Your task to perform on an android device: open app "Contacts" (install if not already installed) Image 0: 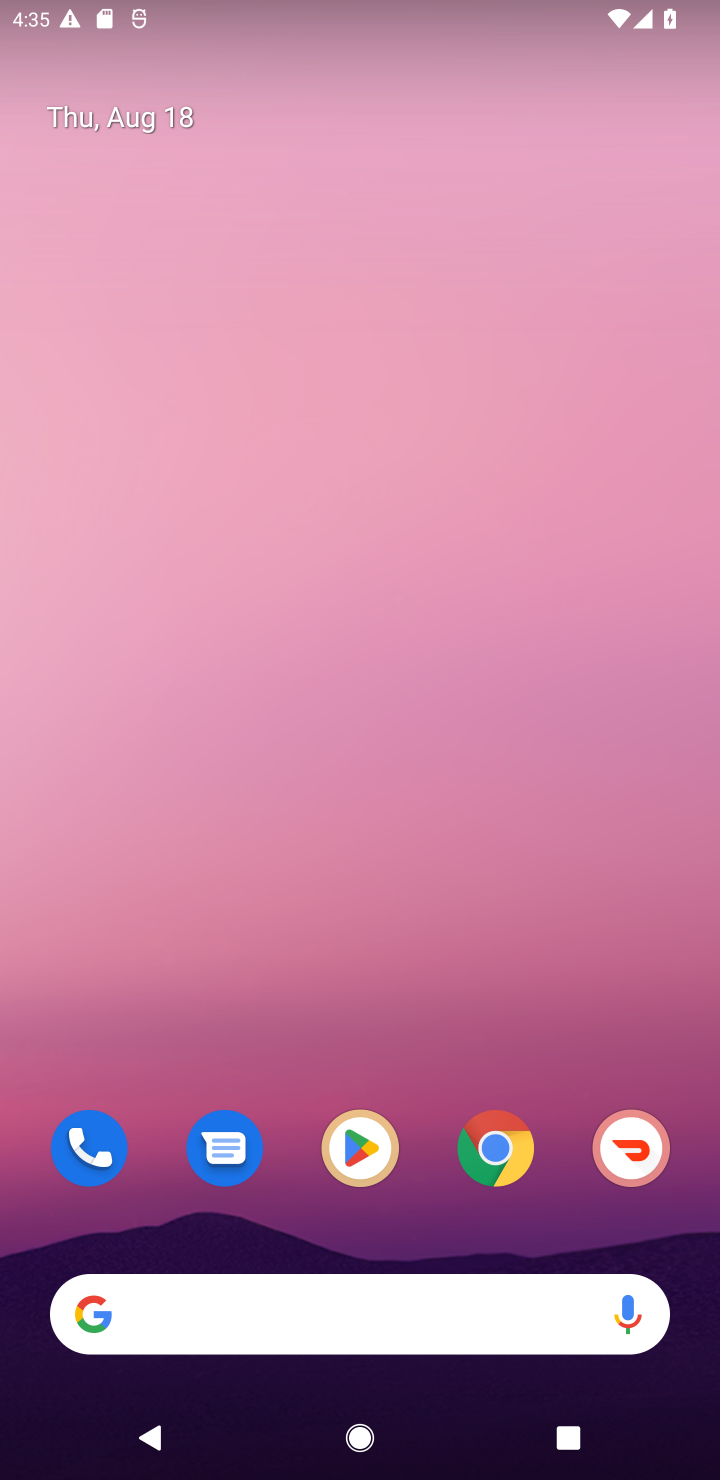
Step 0: drag from (353, 601) to (684, 0)
Your task to perform on an android device: open app "Contacts" (install if not already installed) Image 1: 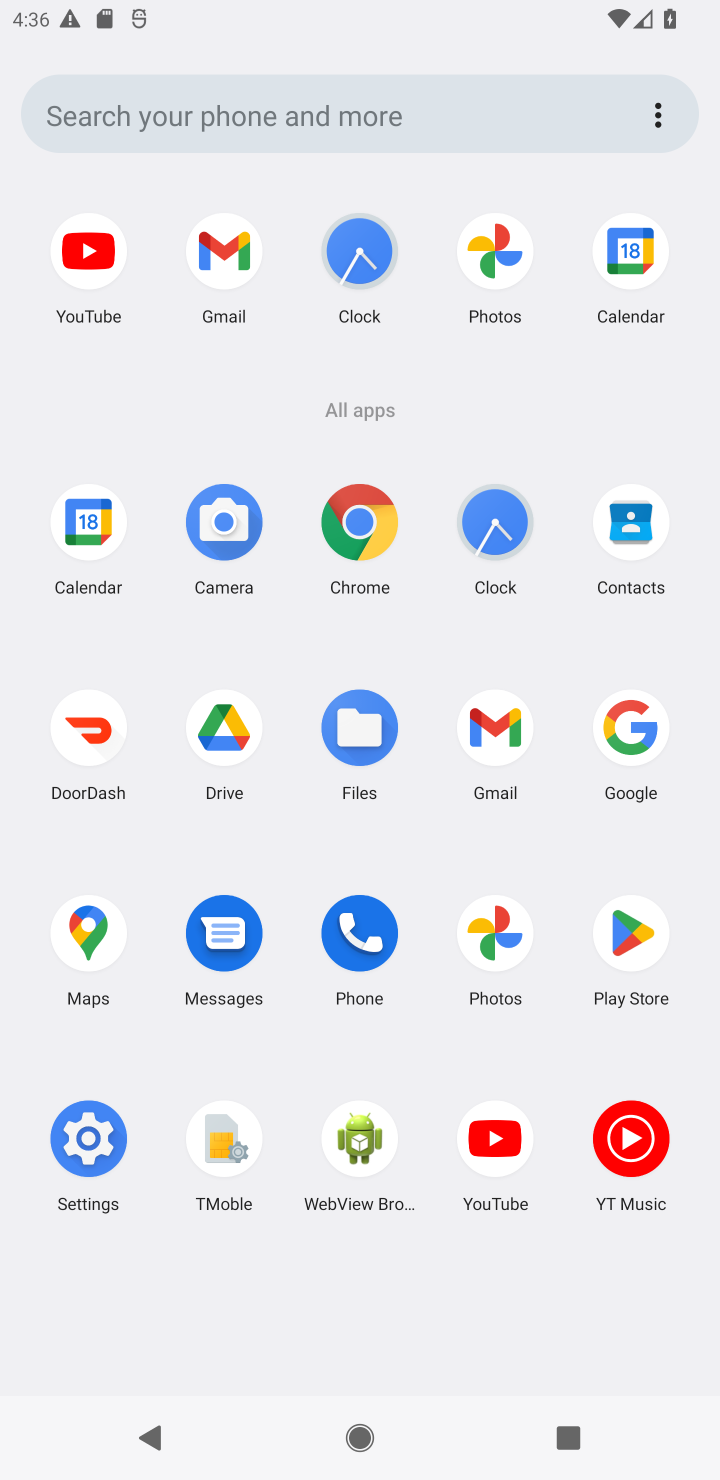
Step 1: click (618, 994)
Your task to perform on an android device: open app "Contacts" (install if not already installed) Image 2: 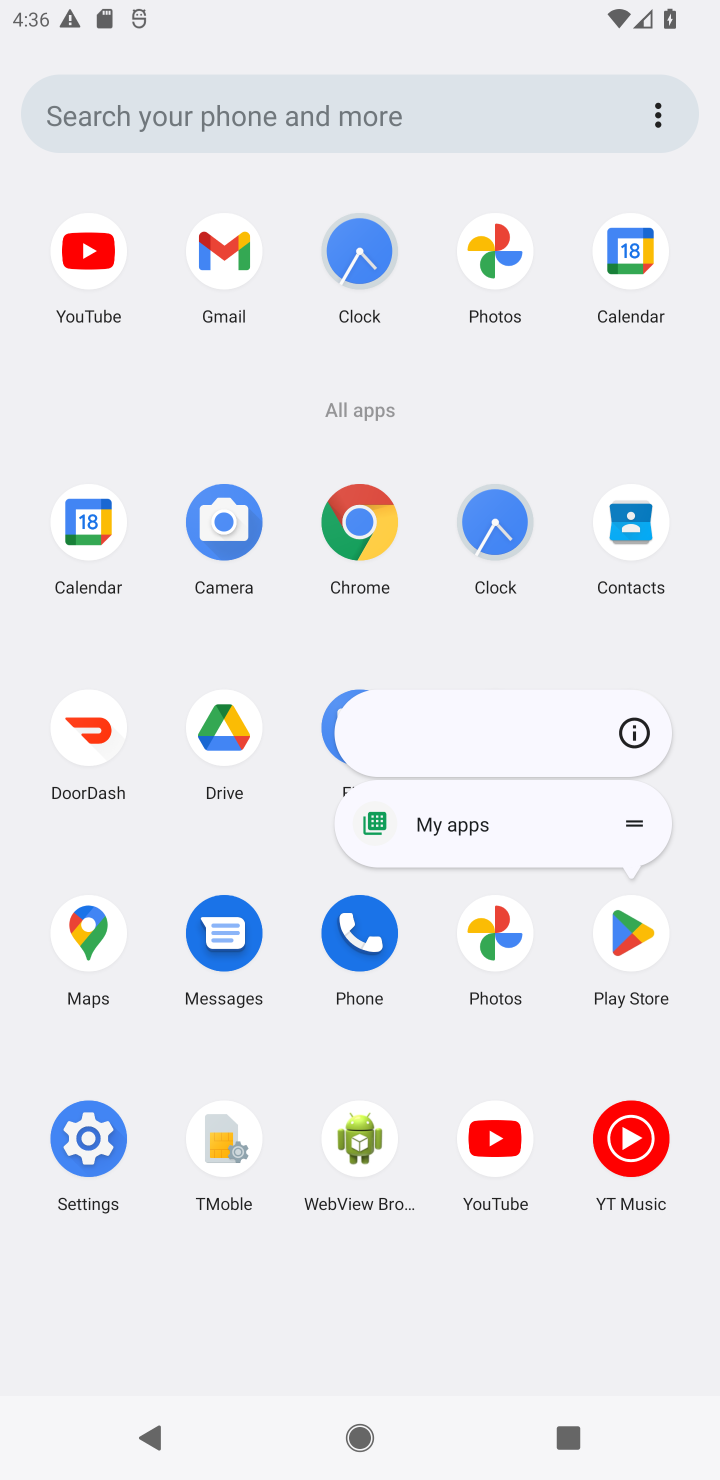
Step 2: click (629, 953)
Your task to perform on an android device: open app "Contacts" (install if not already installed) Image 3: 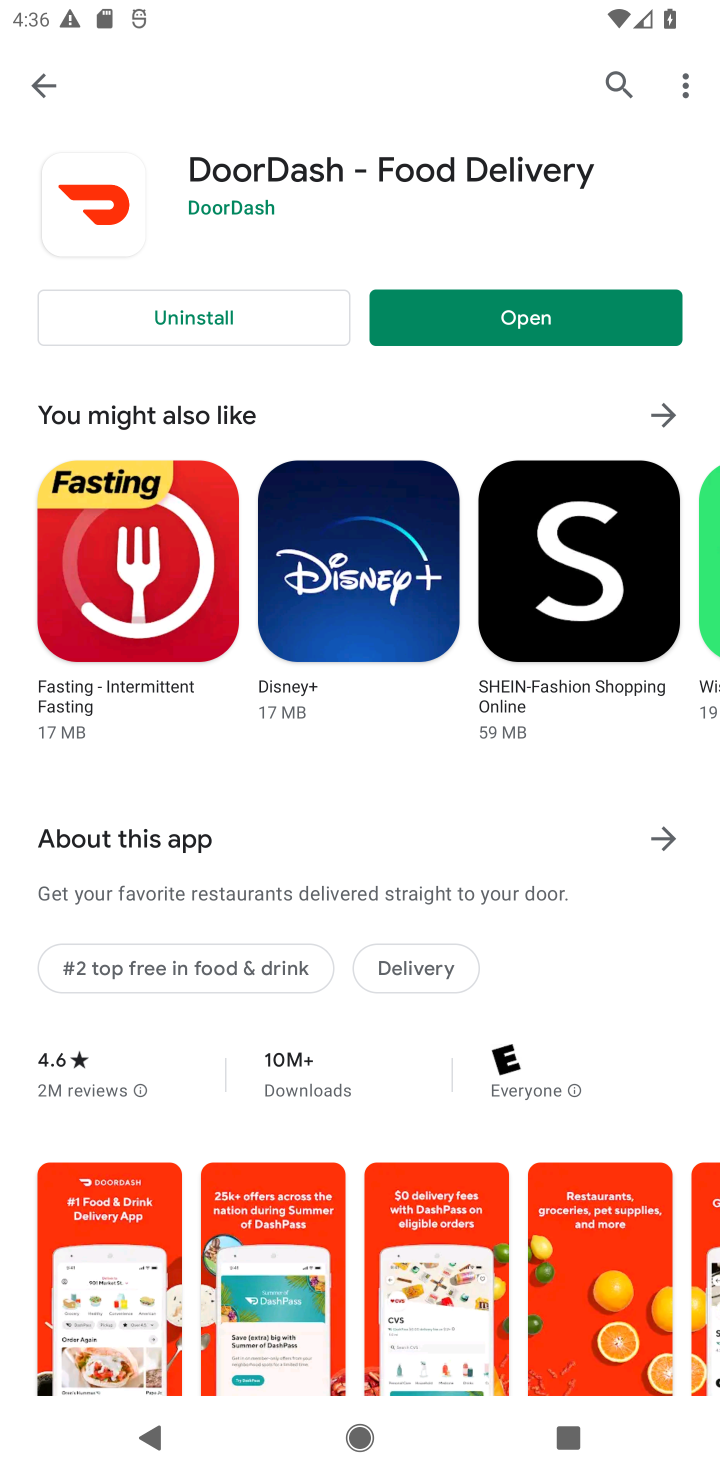
Step 3: click (513, 324)
Your task to perform on an android device: open app "Contacts" (install if not already installed) Image 4: 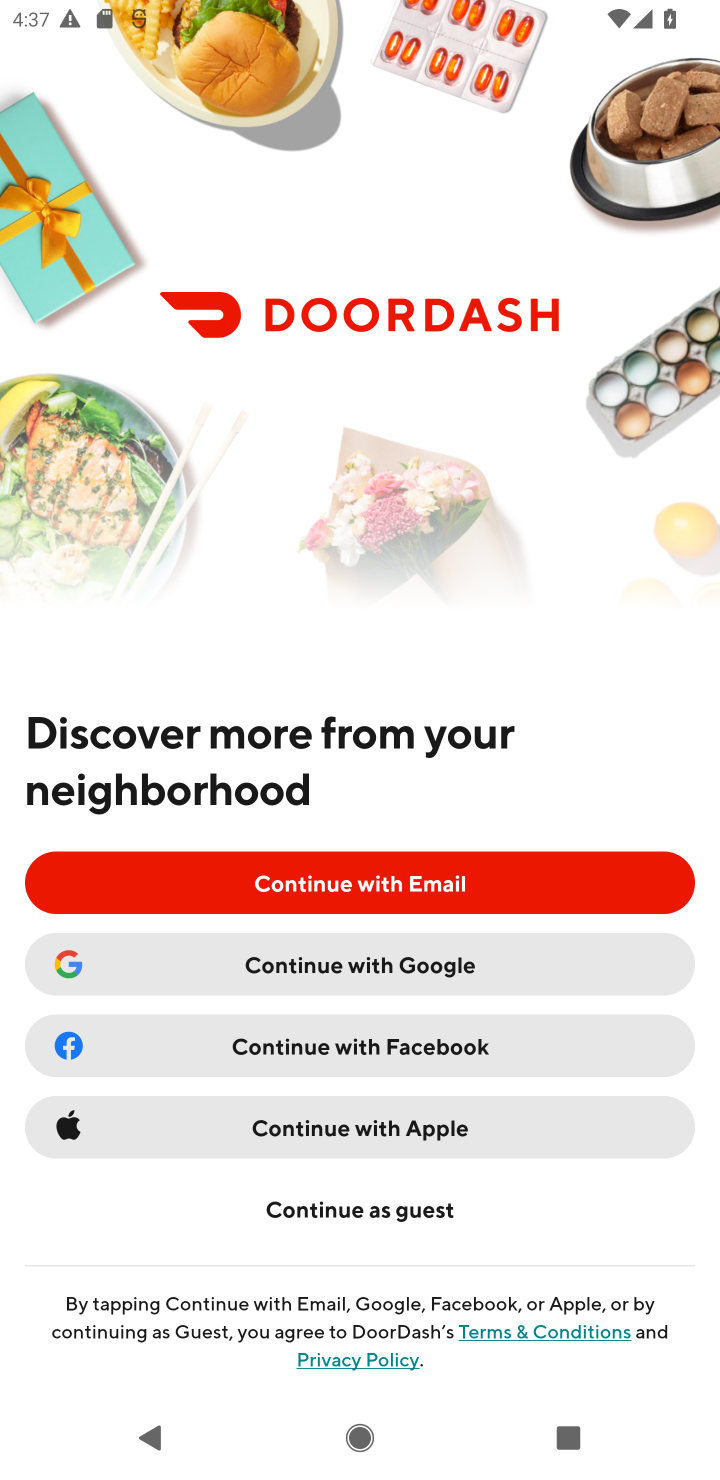
Step 4: press back button
Your task to perform on an android device: open app "Contacts" (install if not already installed) Image 5: 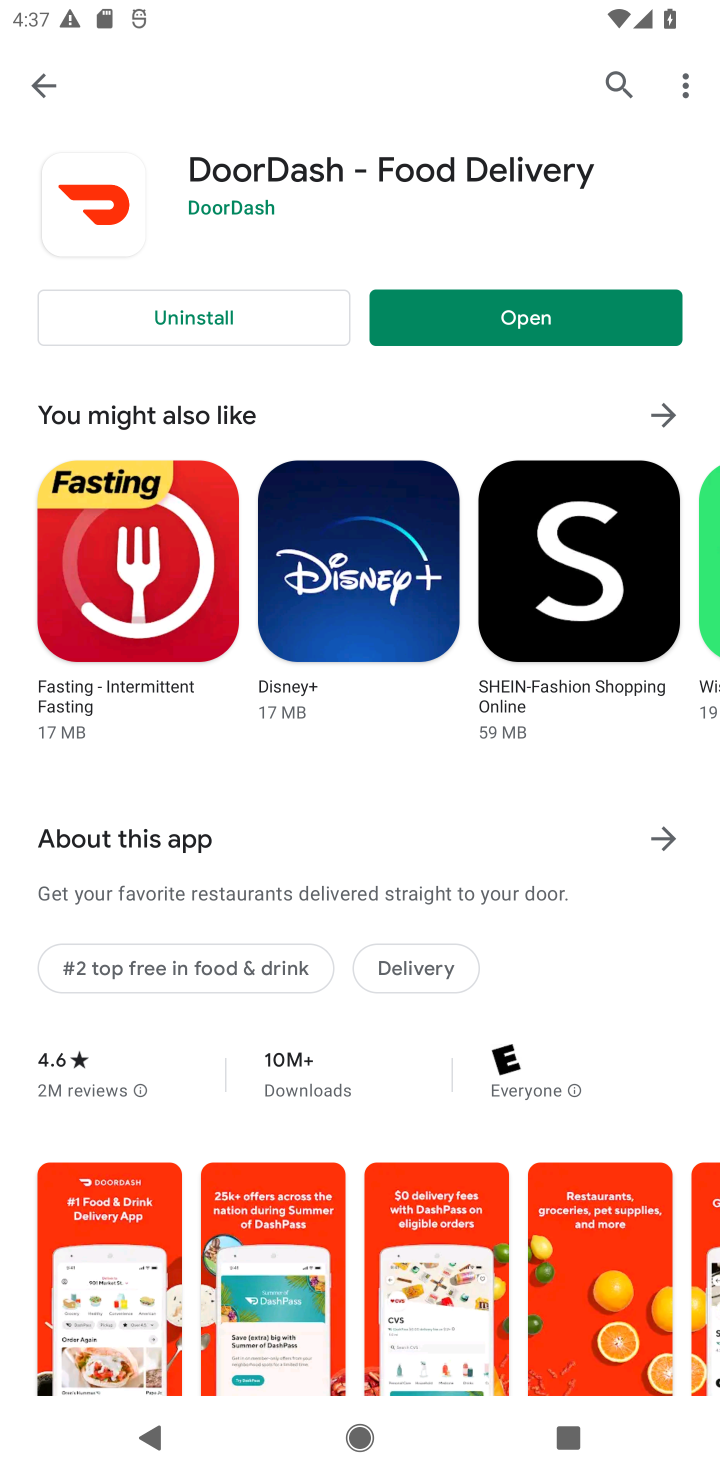
Step 5: click (39, 81)
Your task to perform on an android device: open app "Contacts" (install if not already installed) Image 6: 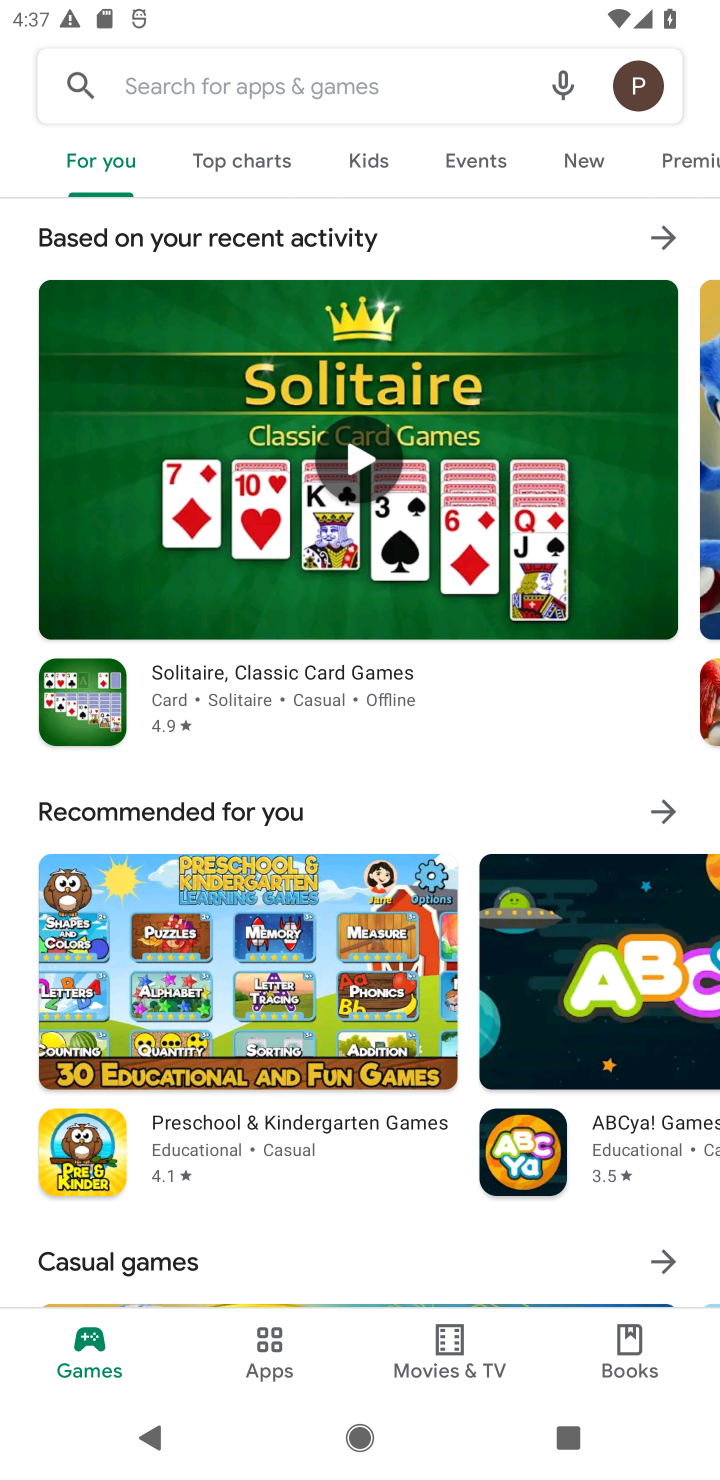
Step 6: click (207, 97)
Your task to perform on an android device: open app "Contacts" (install if not already installed) Image 7: 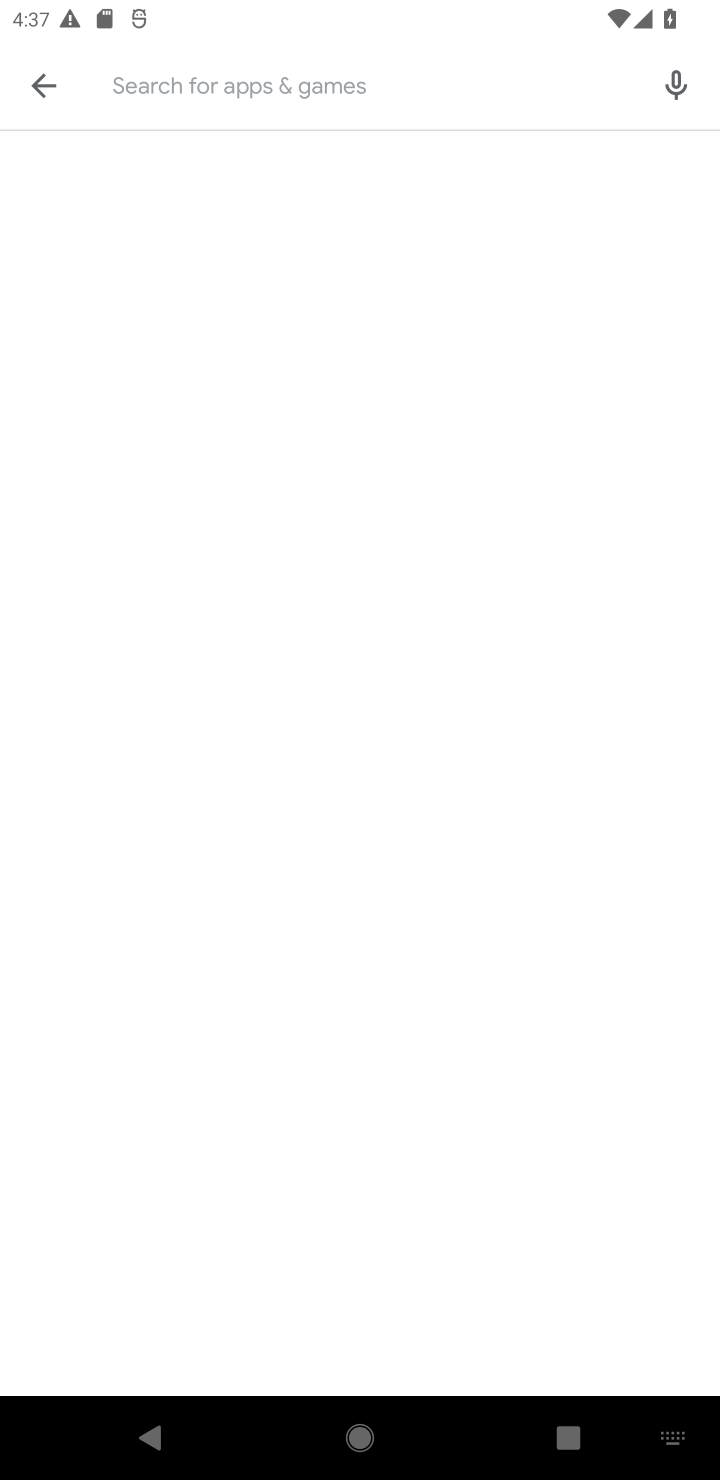
Step 7: type "Contacts"
Your task to perform on an android device: open app "Contacts" (install if not already installed) Image 8: 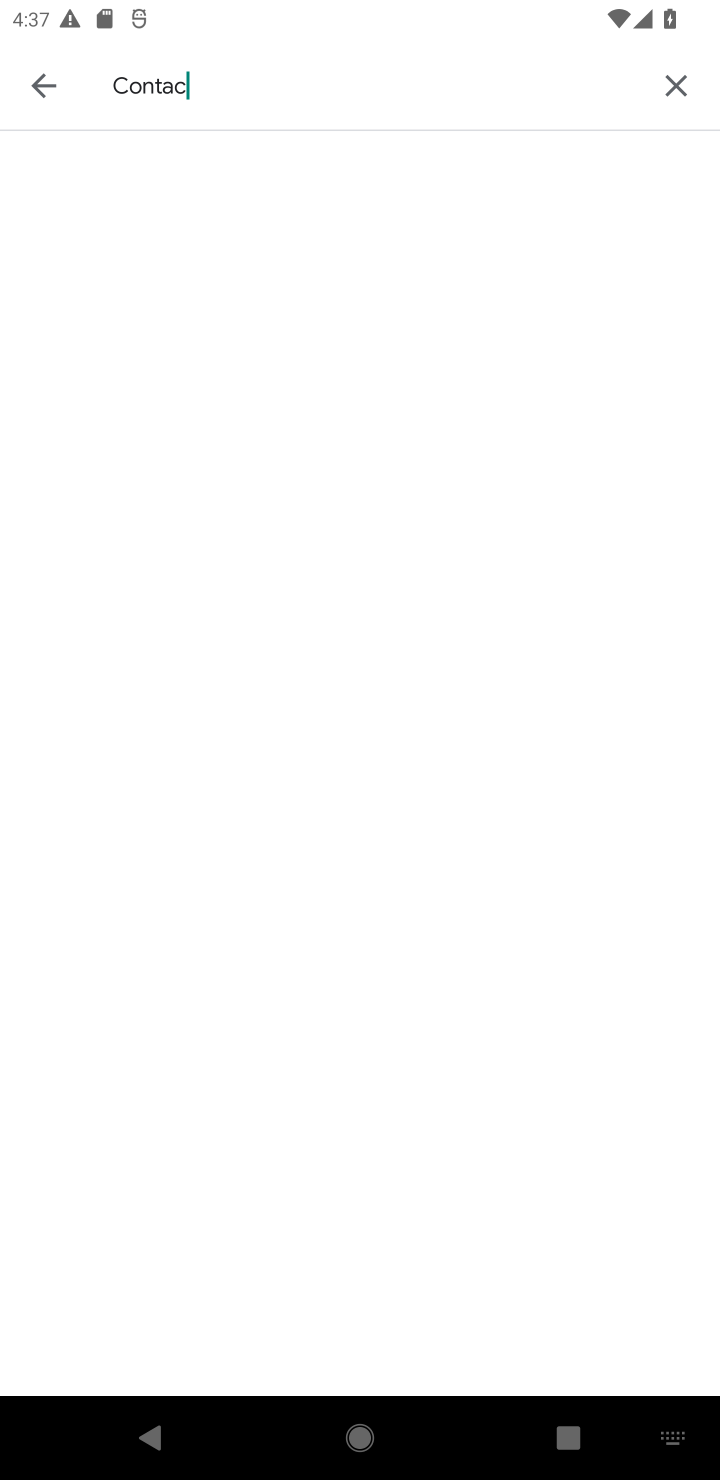
Step 8: press enter
Your task to perform on an android device: open app "Contacts" (install if not already installed) Image 9: 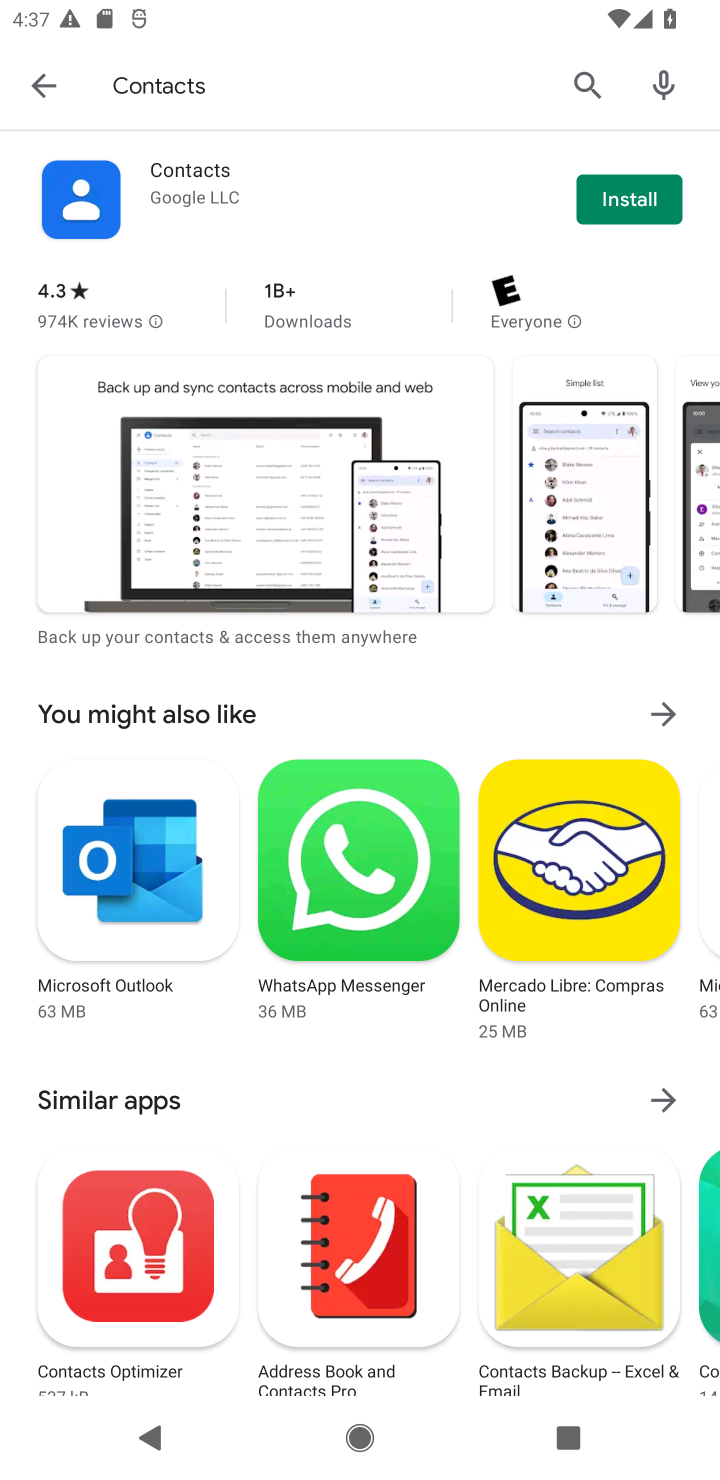
Step 9: click (629, 187)
Your task to perform on an android device: open app "Contacts" (install if not already installed) Image 10: 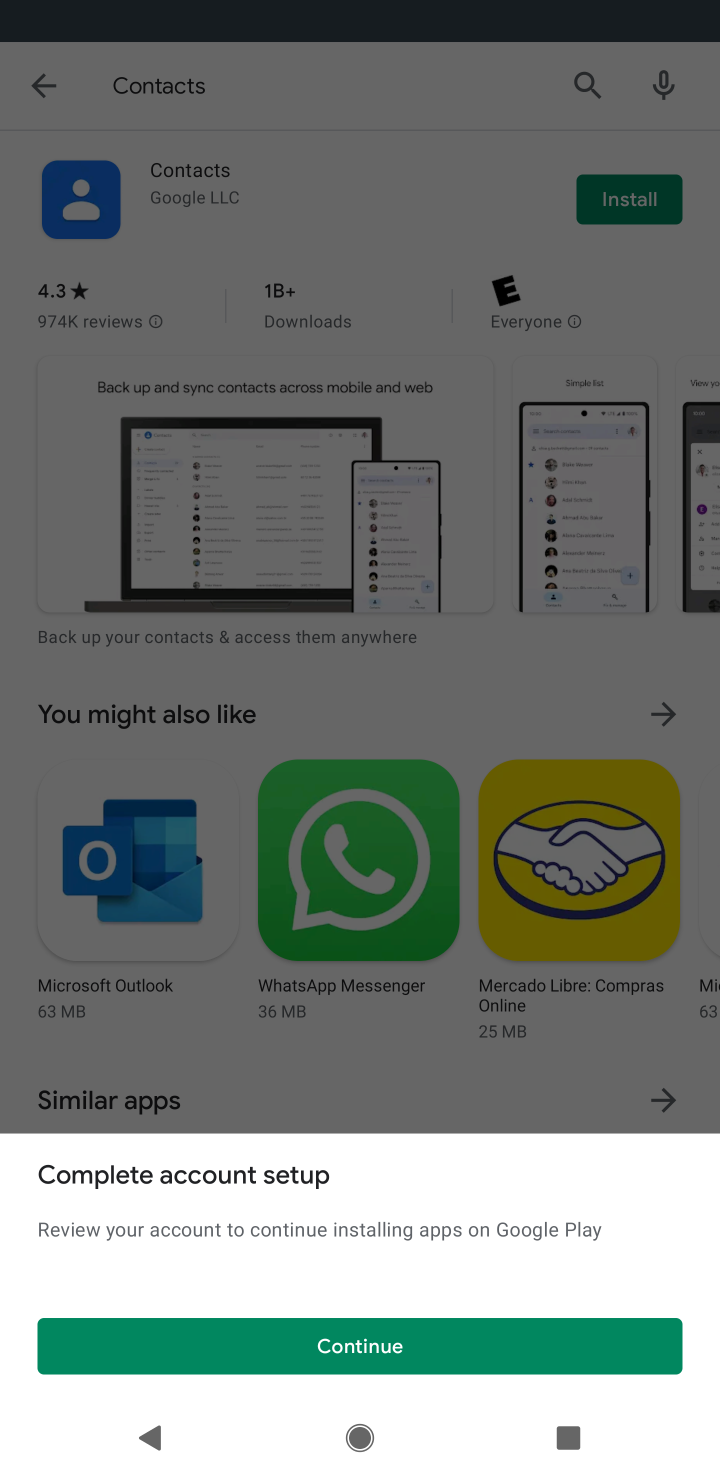
Step 10: click (414, 1337)
Your task to perform on an android device: open app "Contacts" (install if not already installed) Image 11: 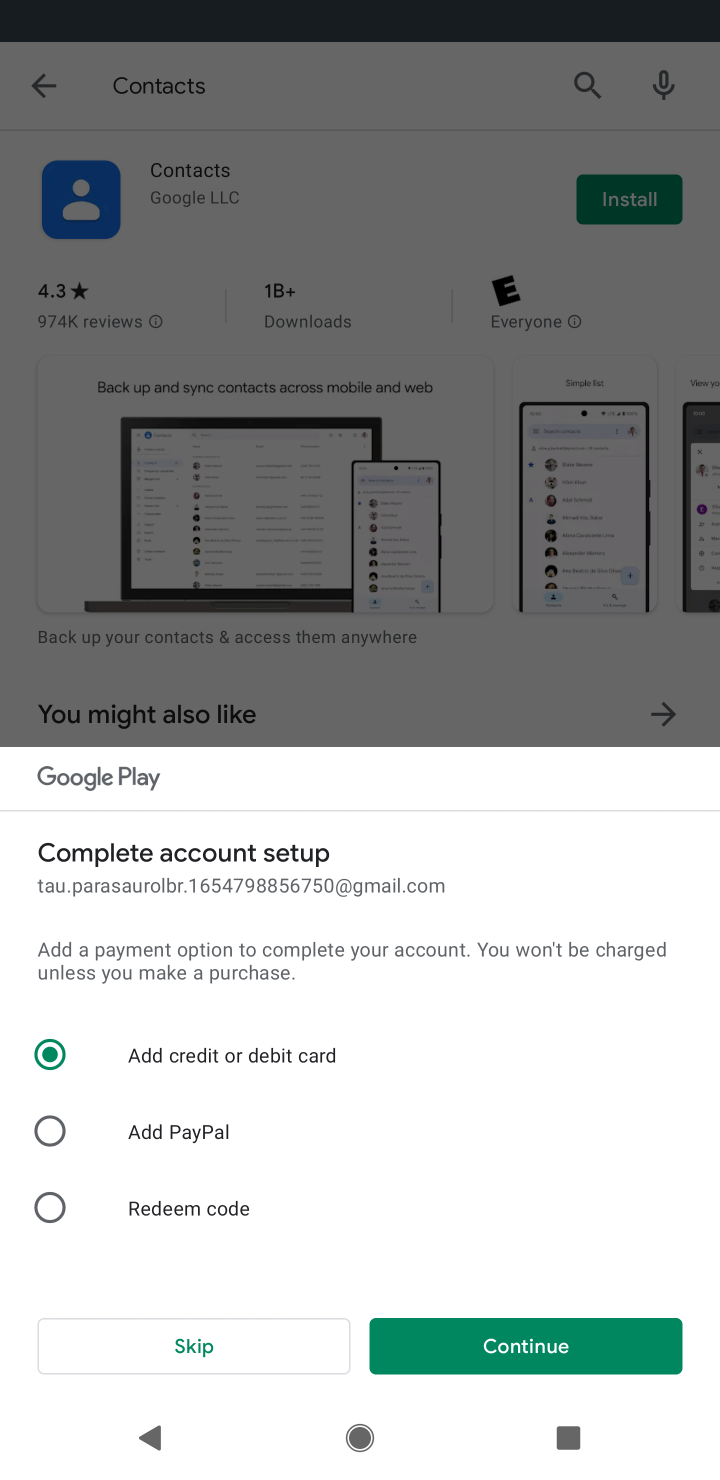
Step 11: click (180, 1341)
Your task to perform on an android device: open app "Contacts" (install if not already installed) Image 12: 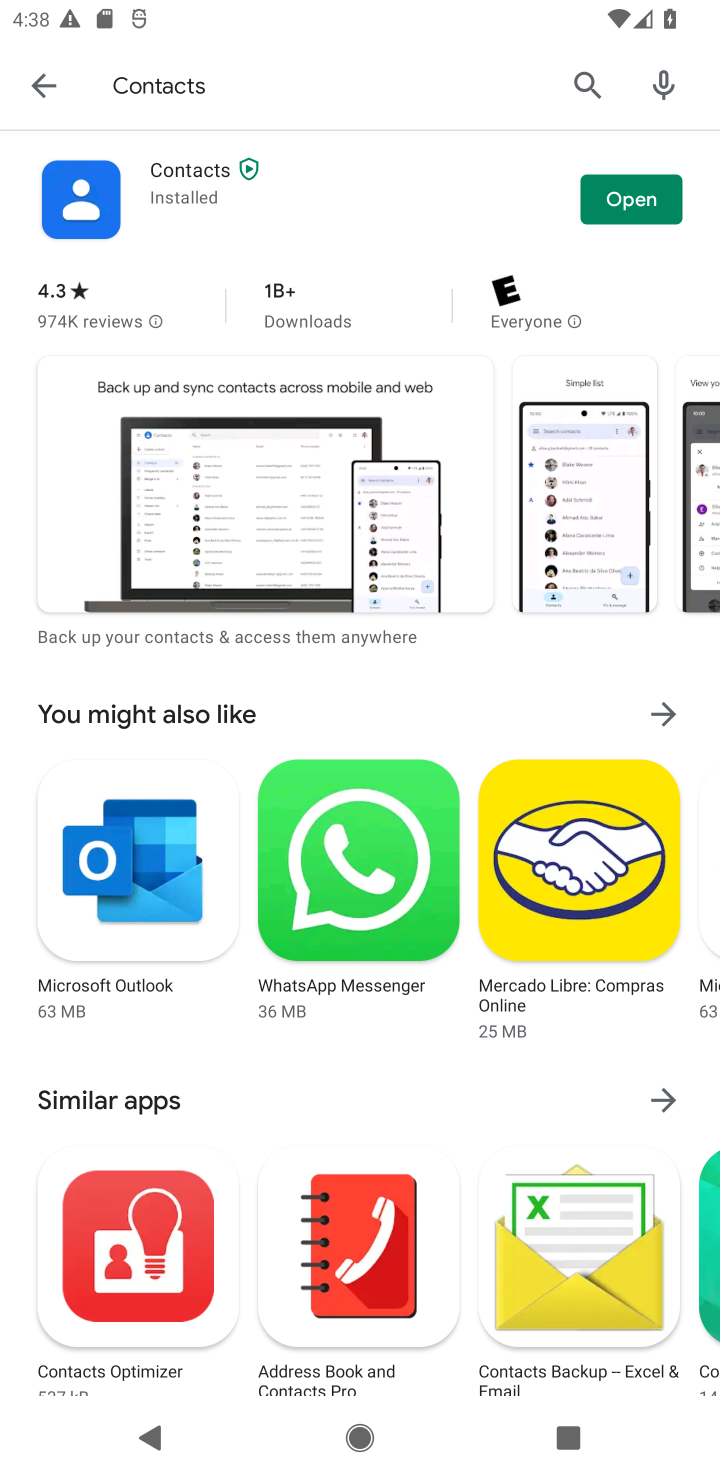
Step 12: click (626, 202)
Your task to perform on an android device: open app "Contacts" (install if not already installed) Image 13: 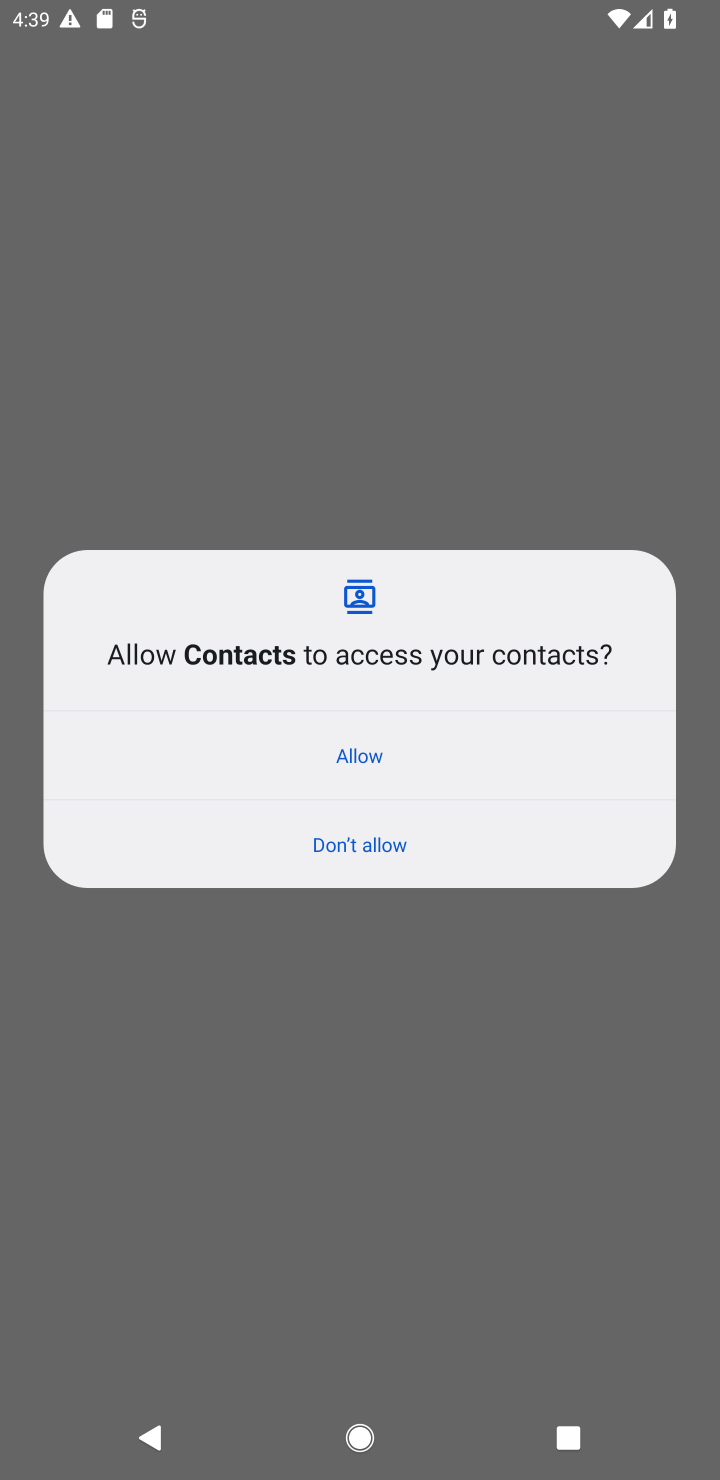
Step 13: click (366, 755)
Your task to perform on an android device: open app "Contacts" (install if not already installed) Image 14: 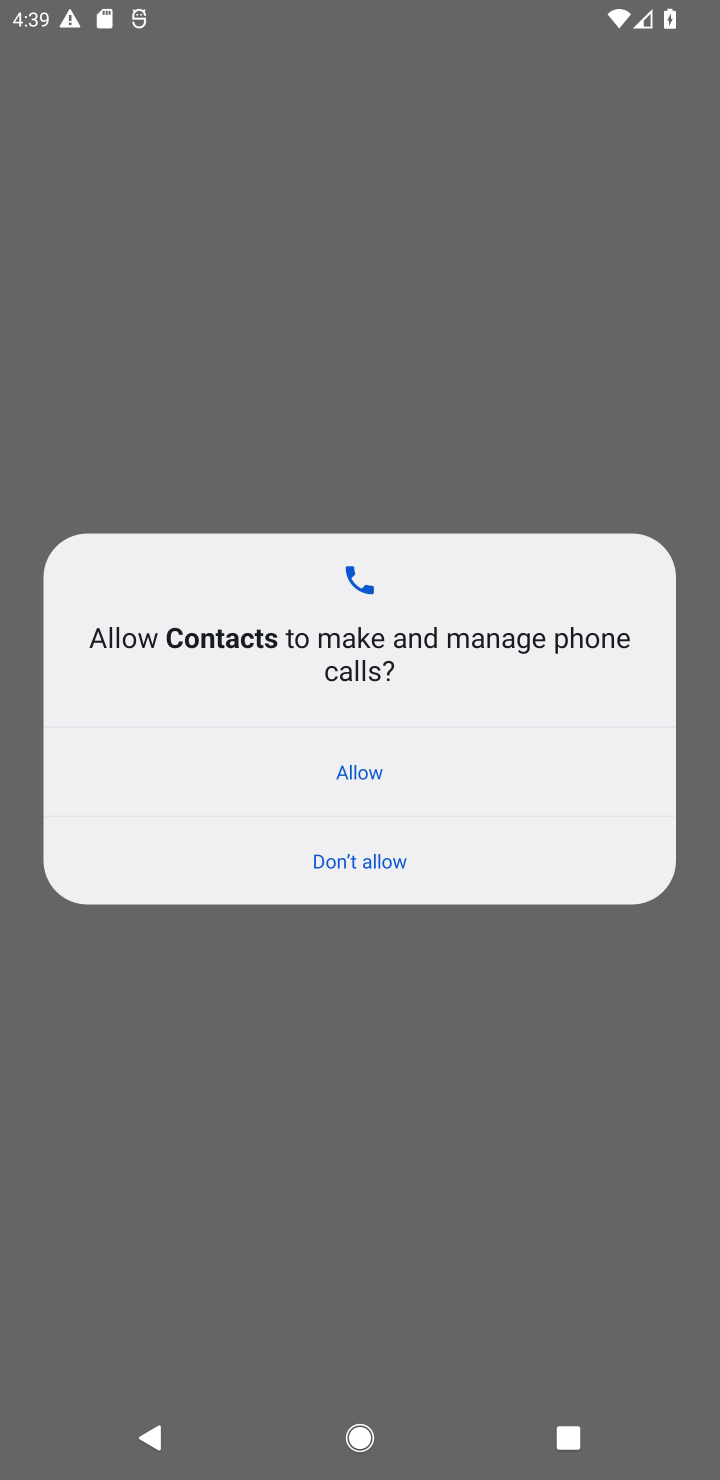
Step 14: click (357, 775)
Your task to perform on an android device: open app "Contacts" (install if not already installed) Image 15: 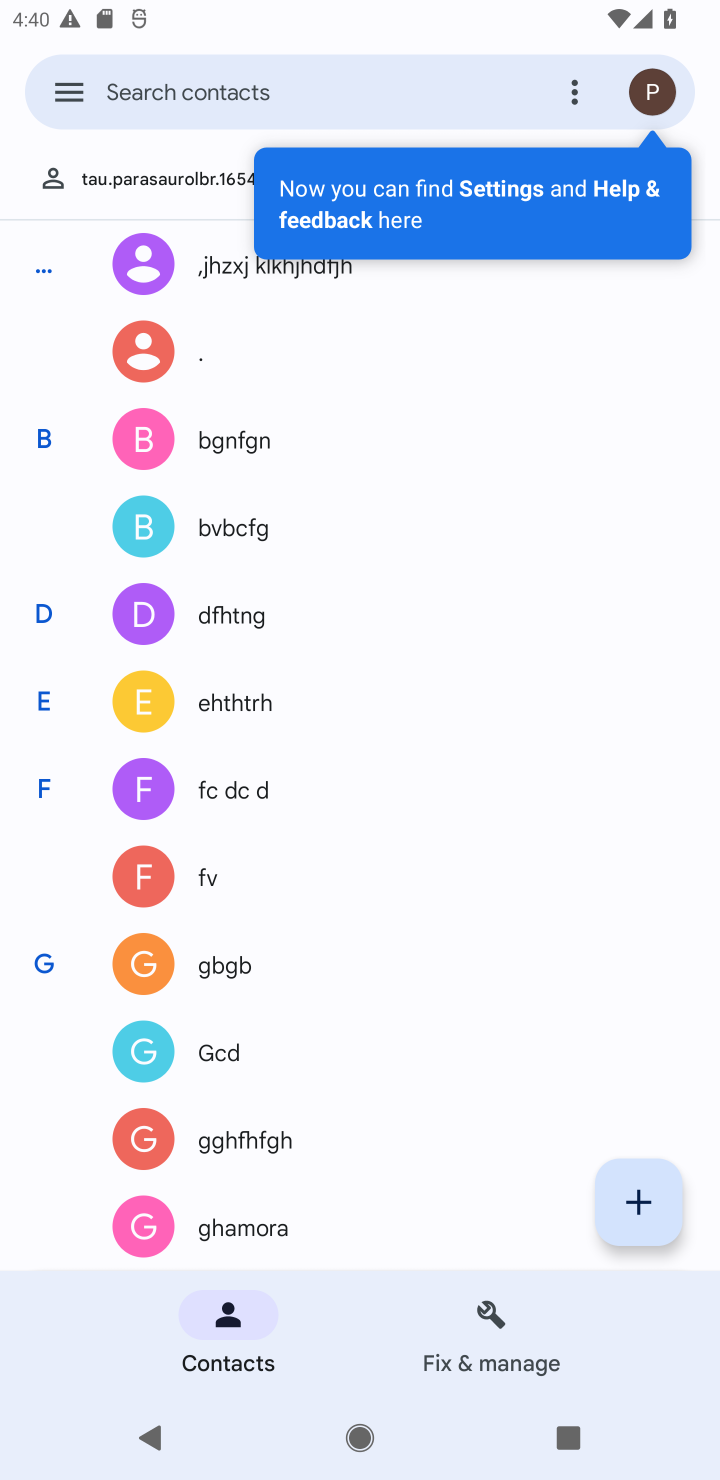
Step 15: press home button
Your task to perform on an android device: open app "Contacts" (install if not already installed) Image 16: 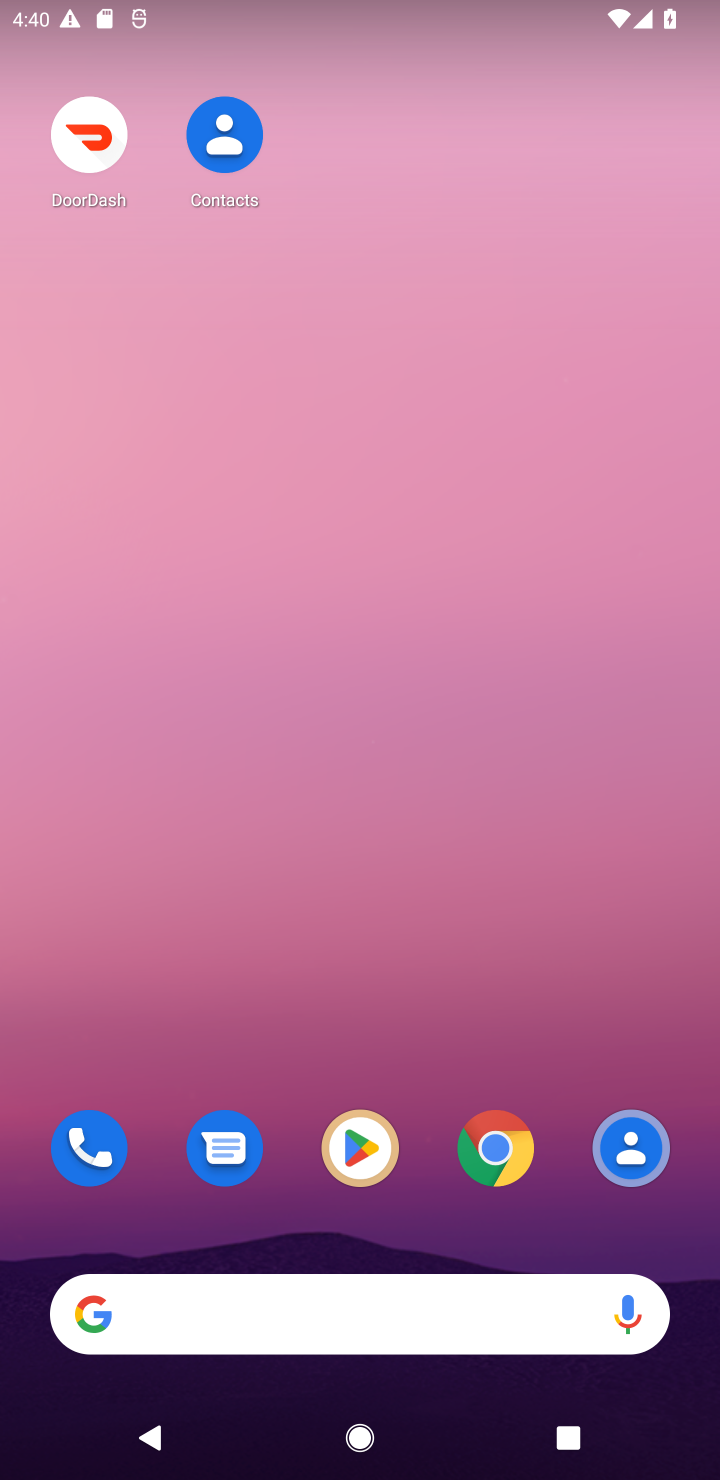
Step 16: drag from (306, 1218) to (245, 171)
Your task to perform on an android device: open app "Contacts" (install if not already installed) Image 17: 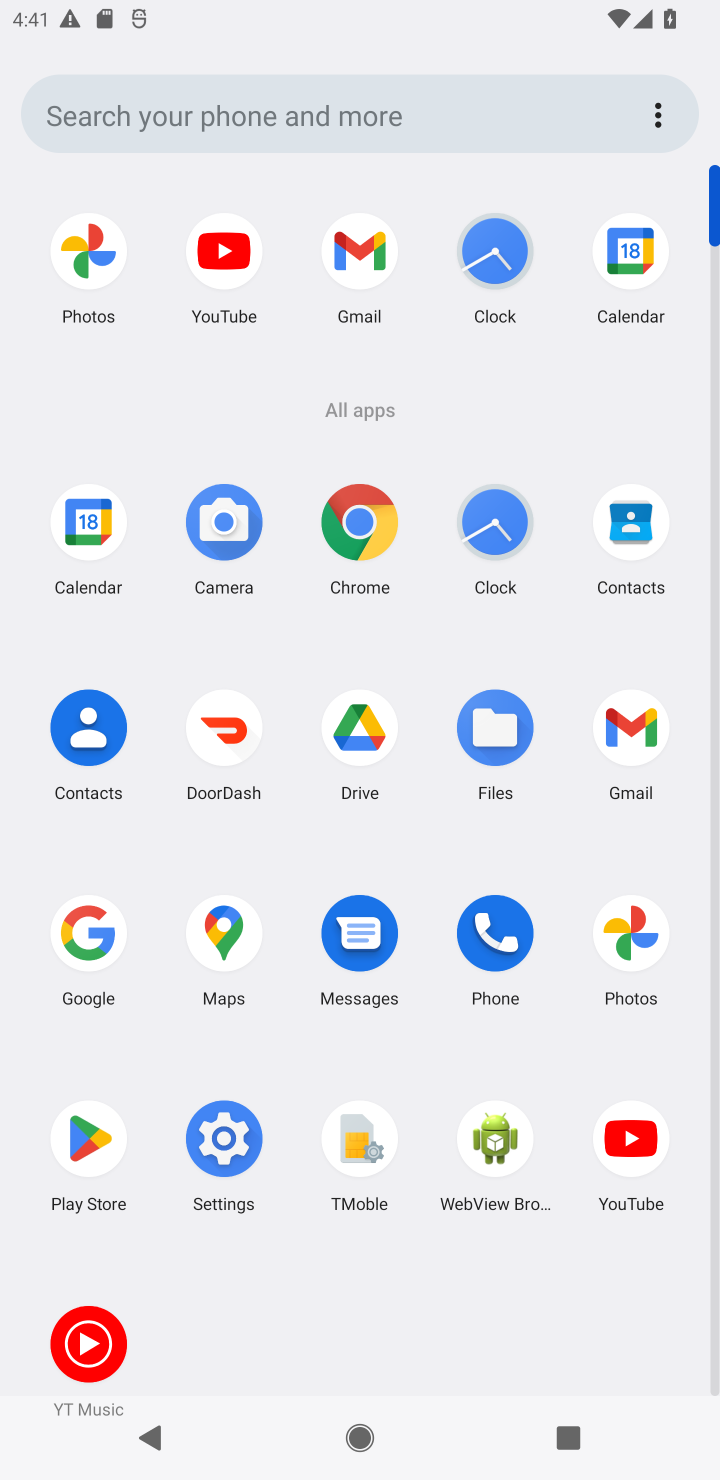
Step 17: click (479, 945)
Your task to perform on an android device: open app "Contacts" (install if not already installed) Image 18: 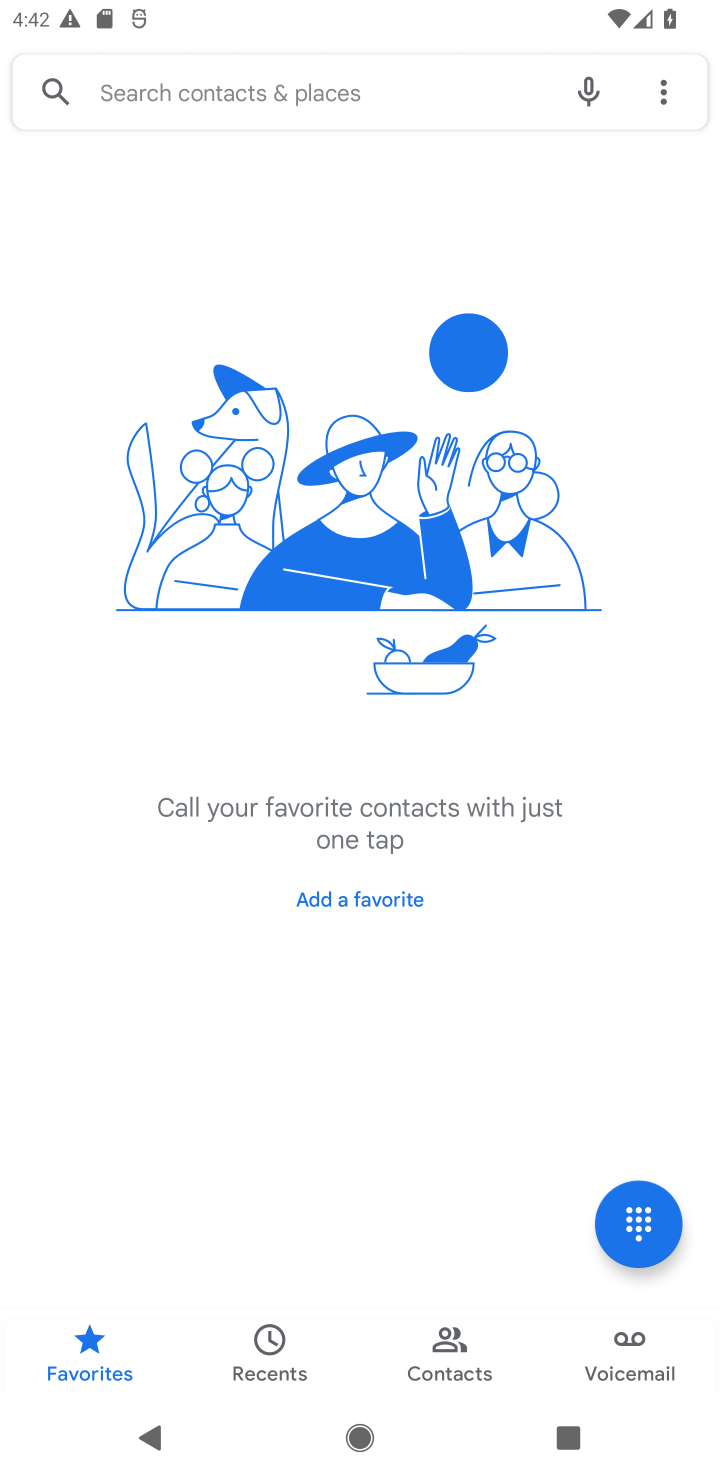
Step 18: task complete